Your task to perform on an android device: change your default location settings in chrome Image 0: 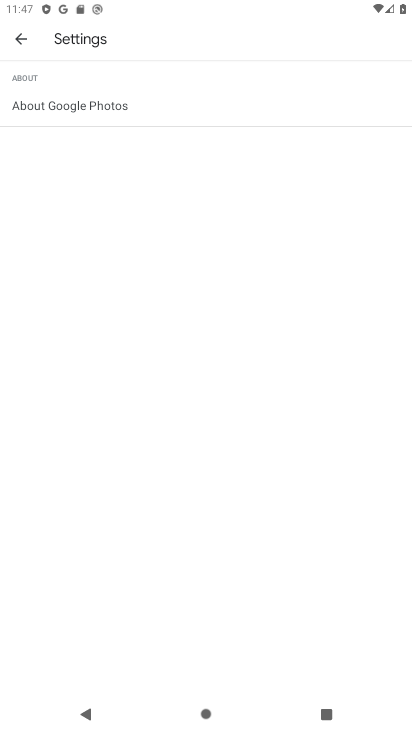
Step 0: press home button
Your task to perform on an android device: change your default location settings in chrome Image 1: 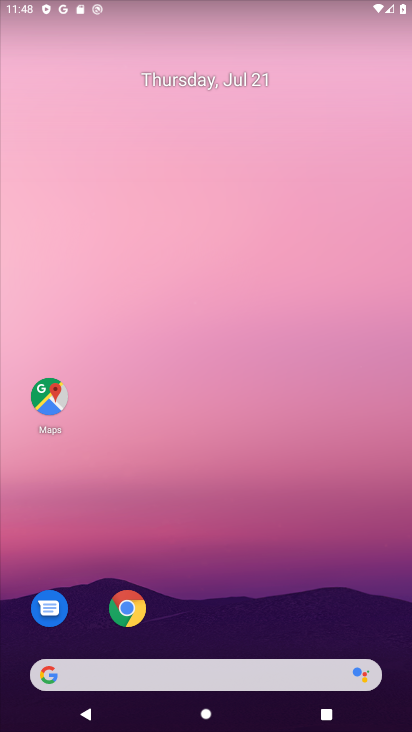
Step 1: click (123, 605)
Your task to perform on an android device: change your default location settings in chrome Image 2: 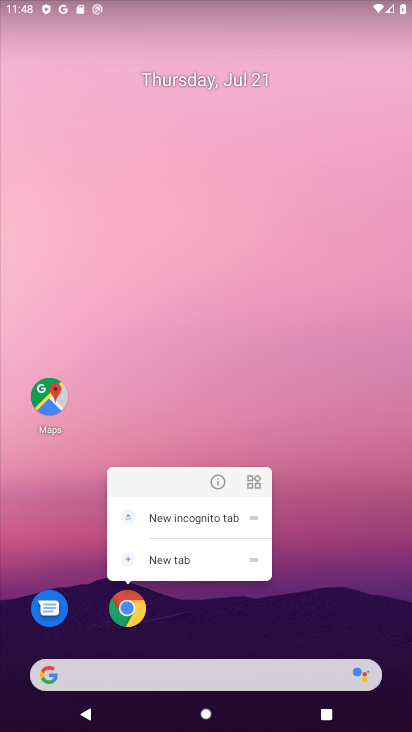
Step 2: click (124, 604)
Your task to perform on an android device: change your default location settings in chrome Image 3: 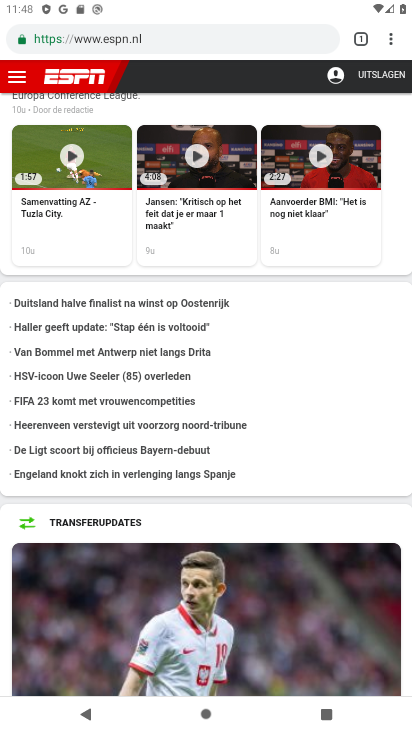
Step 3: click (392, 36)
Your task to perform on an android device: change your default location settings in chrome Image 4: 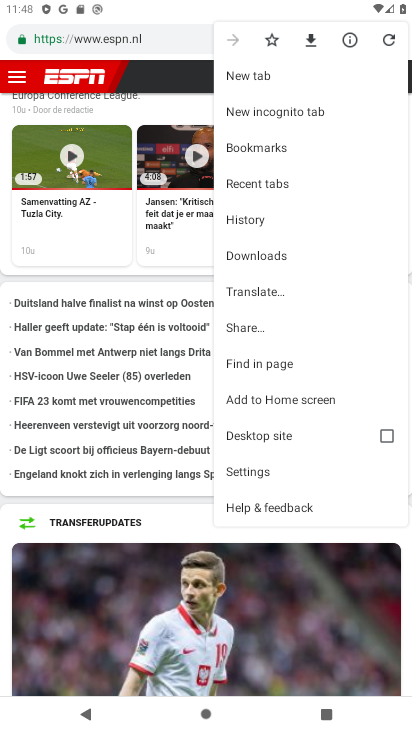
Step 4: click (389, 38)
Your task to perform on an android device: change your default location settings in chrome Image 5: 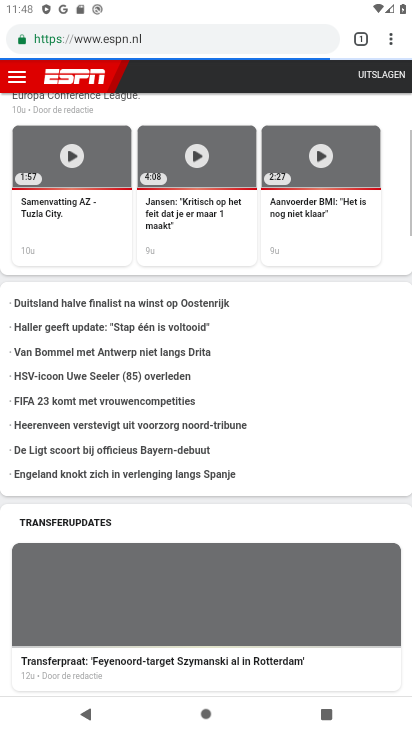
Step 5: click (386, 42)
Your task to perform on an android device: change your default location settings in chrome Image 6: 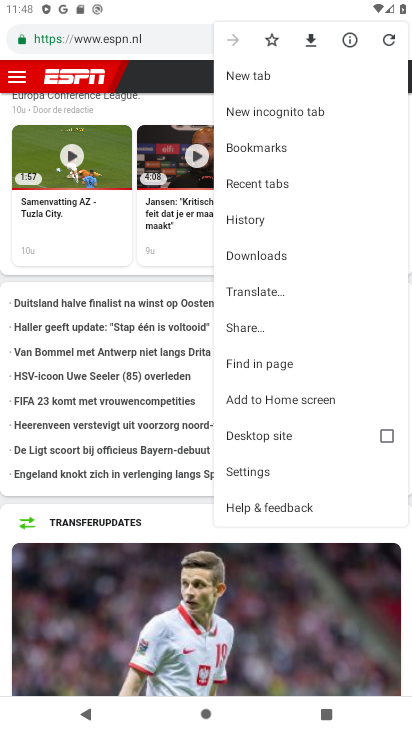
Step 6: click (273, 467)
Your task to perform on an android device: change your default location settings in chrome Image 7: 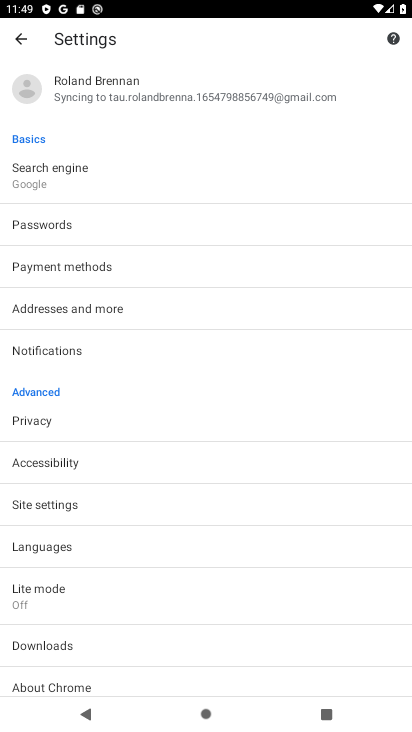
Step 7: click (83, 510)
Your task to perform on an android device: change your default location settings in chrome Image 8: 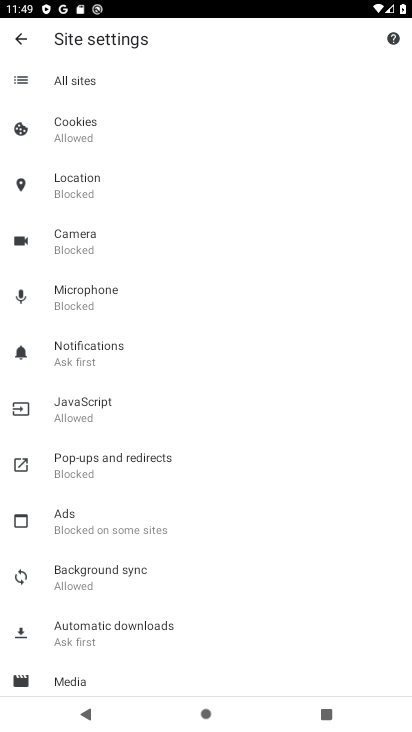
Step 8: click (91, 193)
Your task to perform on an android device: change your default location settings in chrome Image 9: 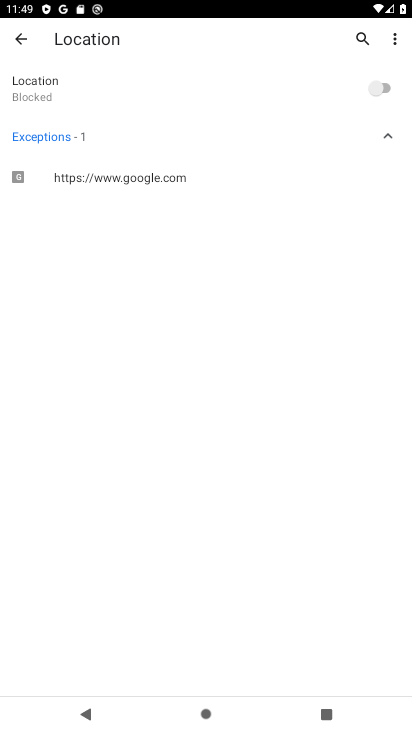
Step 9: click (372, 92)
Your task to perform on an android device: change your default location settings in chrome Image 10: 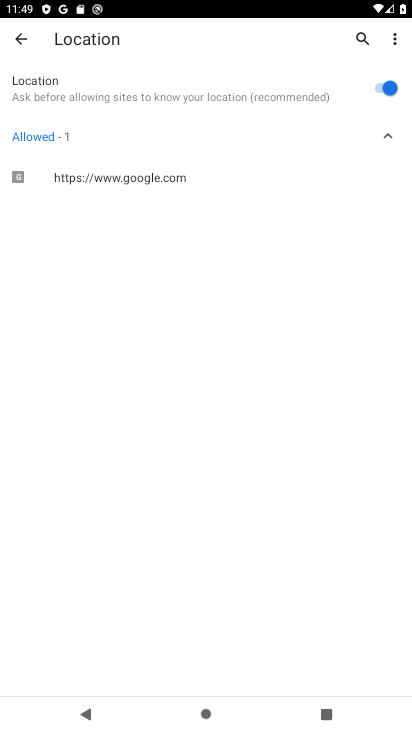
Step 10: task complete